Your task to perform on an android device: open a bookmark in the chrome app Image 0: 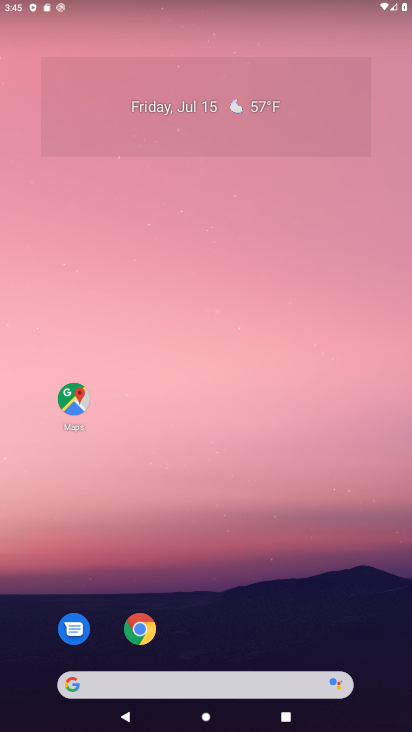
Step 0: press home button
Your task to perform on an android device: open a bookmark in the chrome app Image 1: 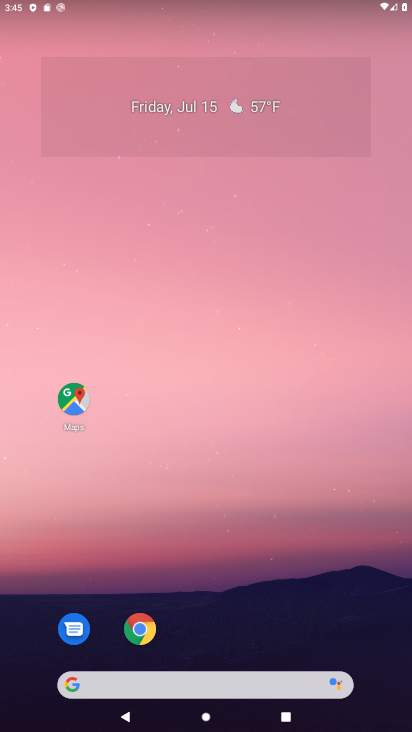
Step 1: click (141, 638)
Your task to perform on an android device: open a bookmark in the chrome app Image 2: 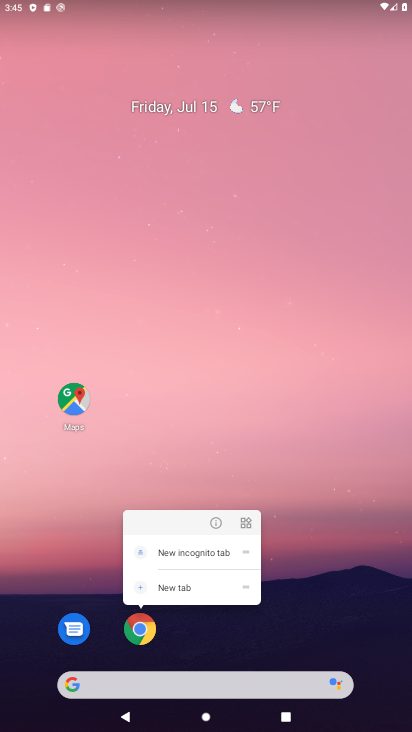
Step 2: click (159, 639)
Your task to perform on an android device: open a bookmark in the chrome app Image 3: 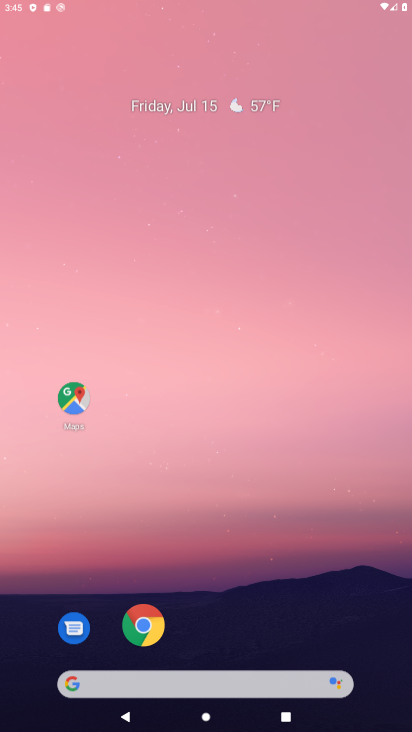
Step 3: click (148, 633)
Your task to perform on an android device: open a bookmark in the chrome app Image 4: 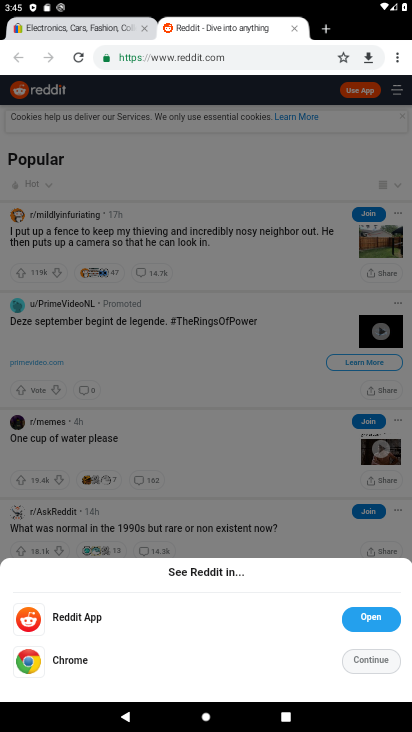
Step 4: task complete